Your task to perform on an android device: Show me popular videos on Youtube Image 0: 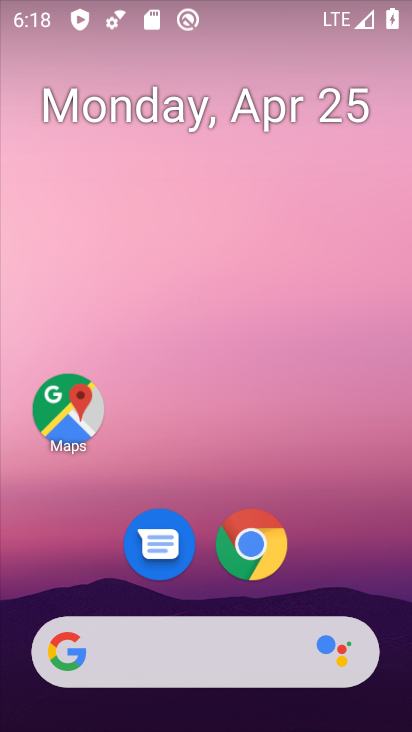
Step 0: drag from (320, 542) to (358, 12)
Your task to perform on an android device: Show me popular videos on Youtube Image 1: 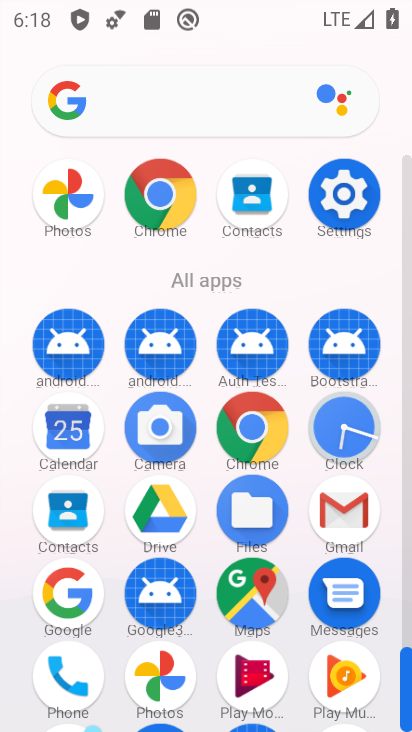
Step 1: drag from (407, 681) to (200, 731)
Your task to perform on an android device: Show me popular videos on Youtube Image 2: 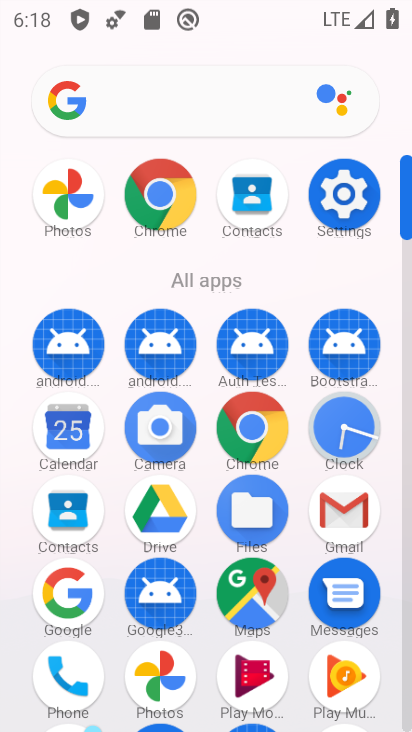
Step 2: drag from (407, 192) to (401, 720)
Your task to perform on an android device: Show me popular videos on Youtube Image 3: 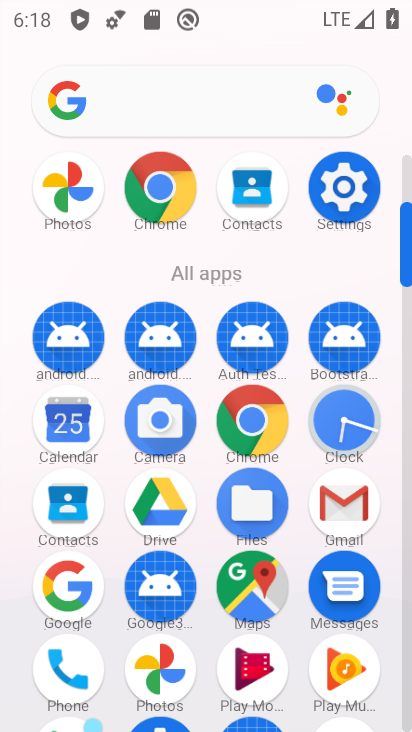
Step 3: drag from (406, 227) to (406, 312)
Your task to perform on an android device: Show me popular videos on Youtube Image 4: 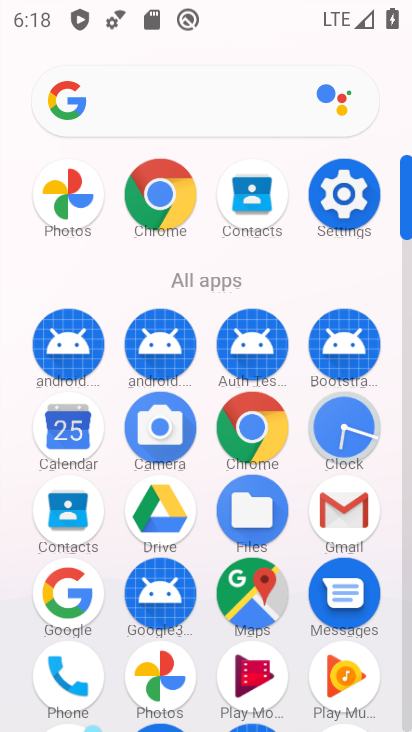
Step 4: click (410, 729)
Your task to perform on an android device: Show me popular videos on Youtube Image 5: 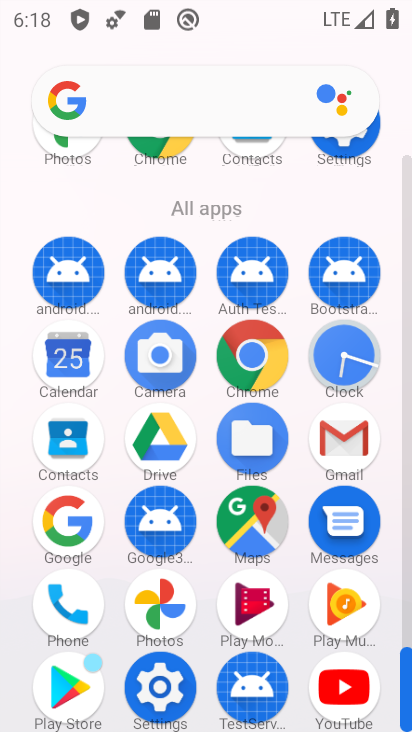
Step 5: click (353, 689)
Your task to perform on an android device: Show me popular videos on Youtube Image 6: 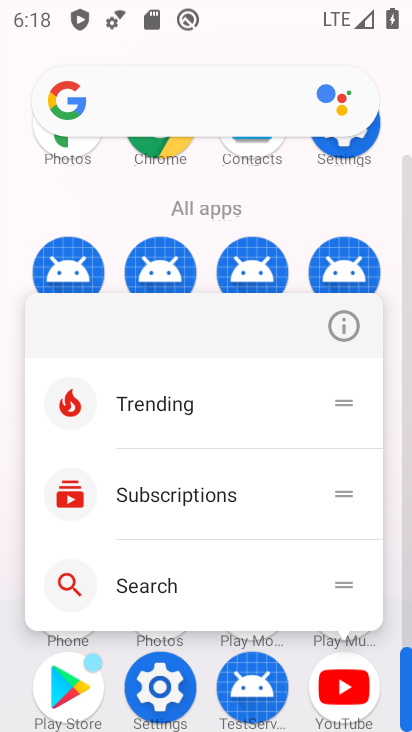
Step 6: click (341, 679)
Your task to perform on an android device: Show me popular videos on Youtube Image 7: 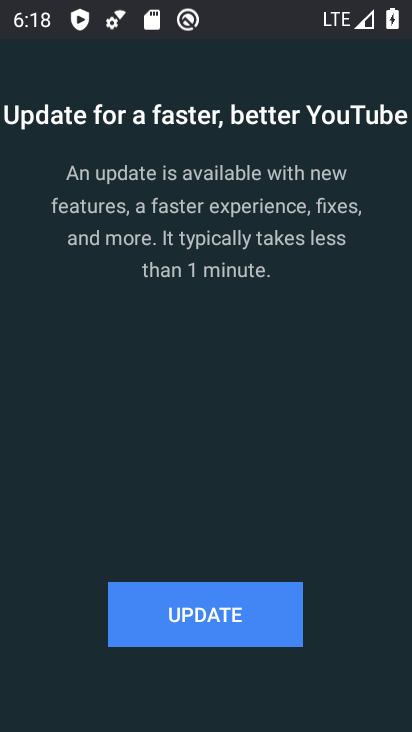
Step 7: click (233, 604)
Your task to perform on an android device: Show me popular videos on Youtube Image 8: 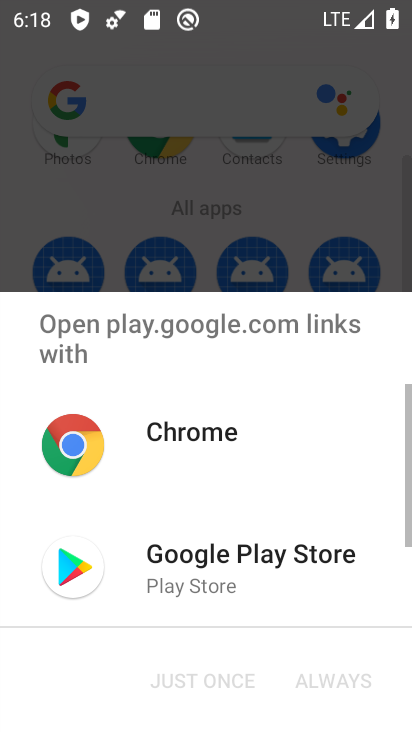
Step 8: click (225, 570)
Your task to perform on an android device: Show me popular videos on Youtube Image 9: 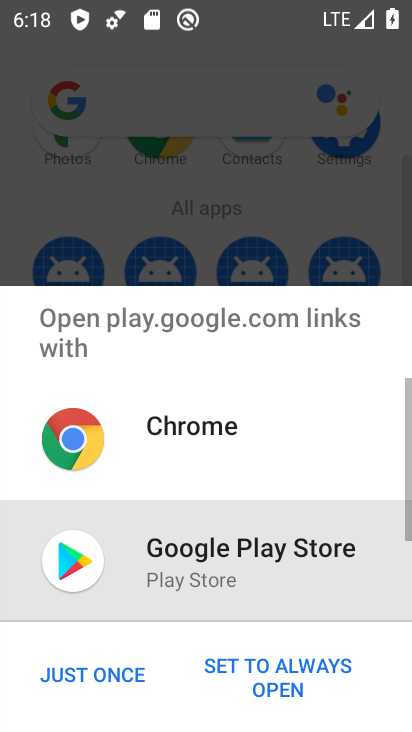
Step 9: click (216, 676)
Your task to perform on an android device: Show me popular videos on Youtube Image 10: 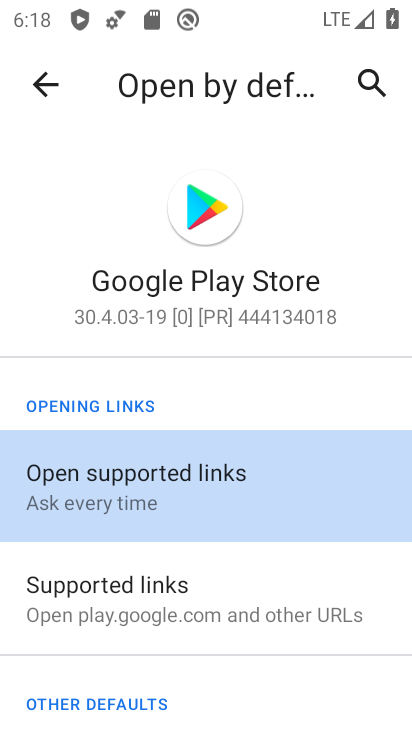
Step 10: click (44, 72)
Your task to perform on an android device: Show me popular videos on Youtube Image 11: 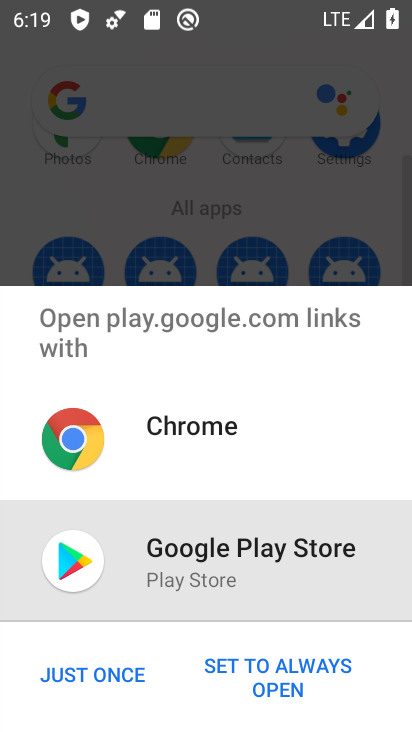
Step 11: click (54, 677)
Your task to perform on an android device: Show me popular videos on Youtube Image 12: 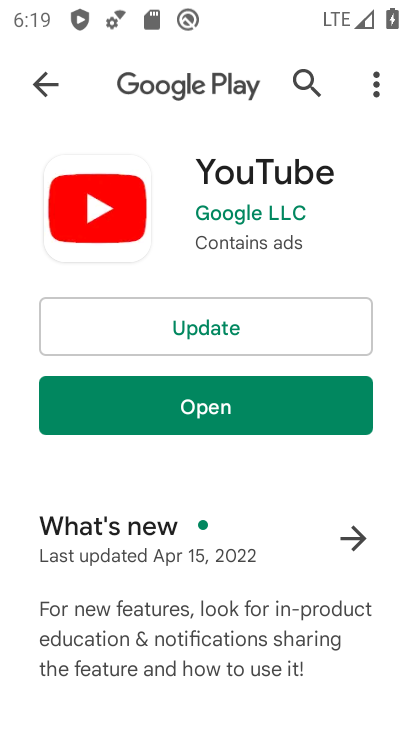
Step 12: click (261, 341)
Your task to perform on an android device: Show me popular videos on Youtube Image 13: 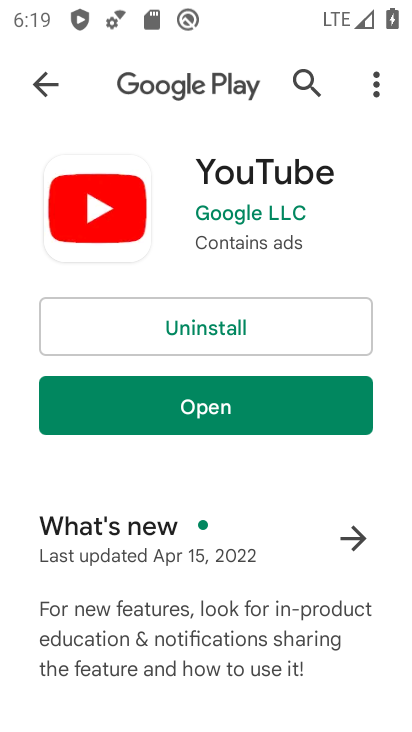
Step 13: click (351, 392)
Your task to perform on an android device: Show me popular videos on Youtube Image 14: 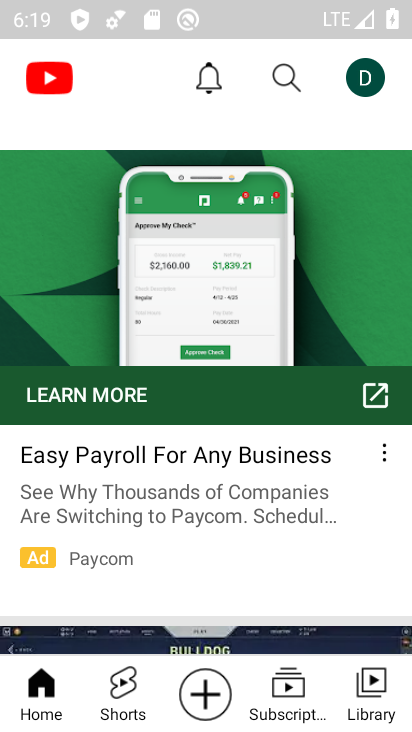
Step 14: click (287, 68)
Your task to perform on an android device: Show me popular videos on Youtube Image 15: 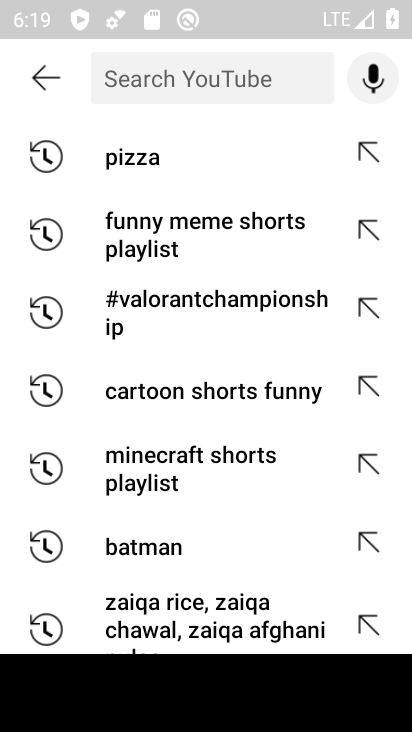
Step 15: click (184, 66)
Your task to perform on an android device: Show me popular videos on Youtube Image 16: 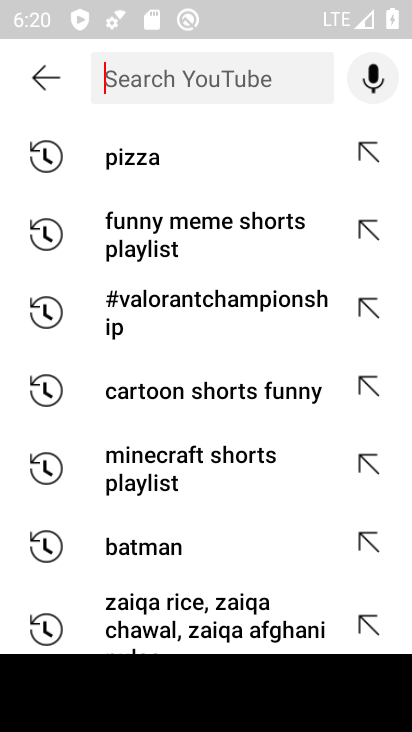
Step 16: type " popular videos"
Your task to perform on an android device: Show me popular videos on Youtube Image 17: 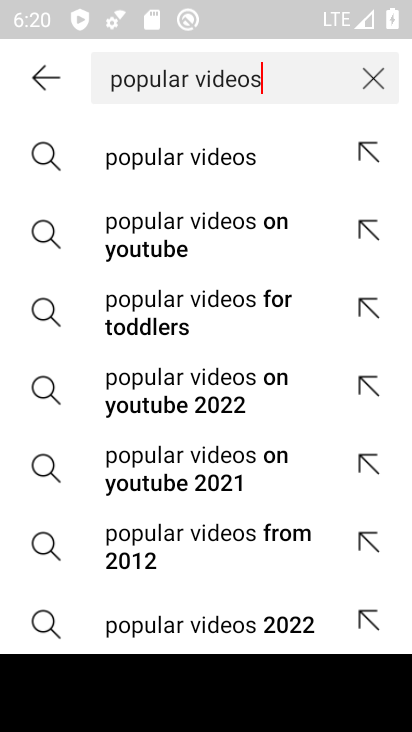
Step 17: click (215, 165)
Your task to perform on an android device: Show me popular videos on Youtube Image 18: 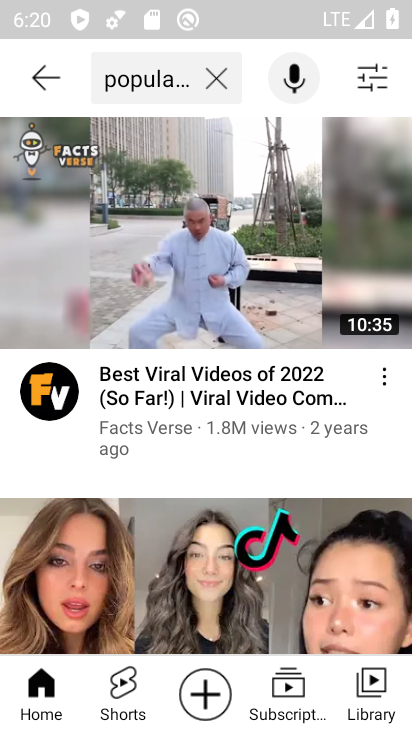
Step 18: task complete